Your task to perform on an android device: Go to settings Image 0: 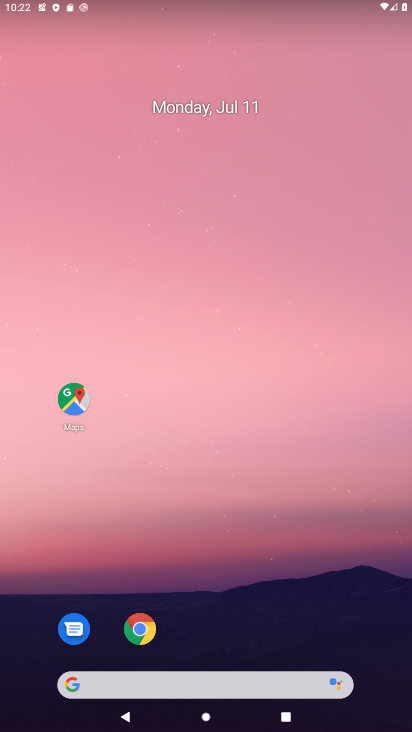
Step 0: drag from (236, 636) to (238, 168)
Your task to perform on an android device: Go to settings Image 1: 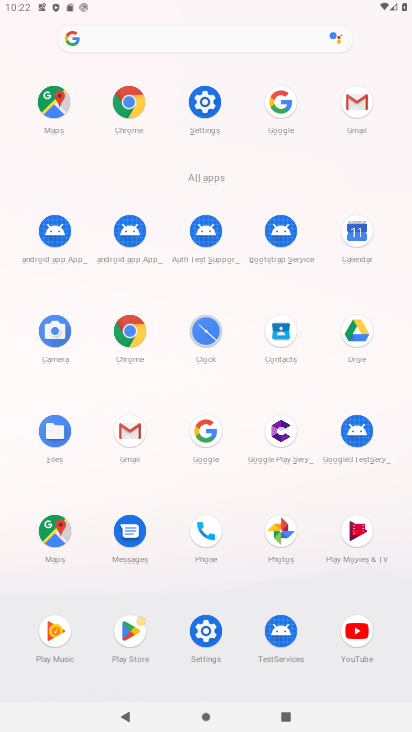
Step 1: click (226, 113)
Your task to perform on an android device: Go to settings Image 2: 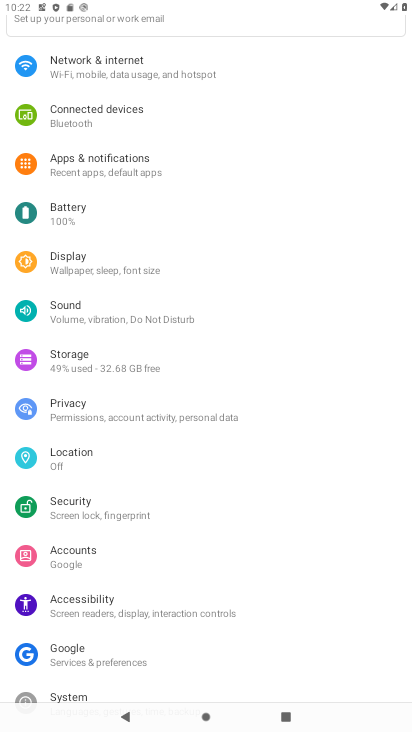
Step 2: task complete